Your task to perform on an android device: Open Chrome and go to settings Image 0: 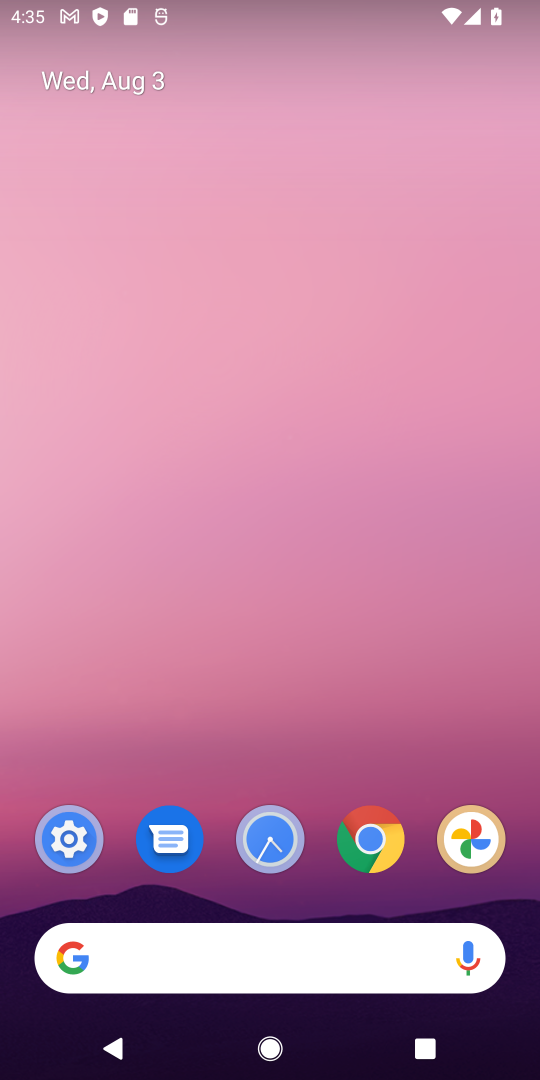
Step 0: click (368, 839)
Your task to perform on an android device: Open Chrome and go to settings Image 1: 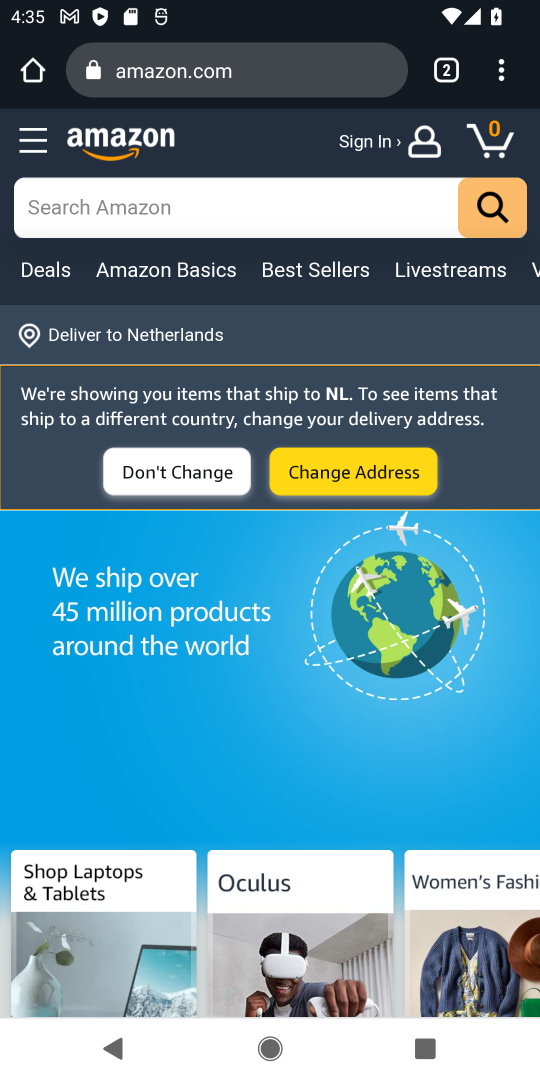
Step 1: task complete